Your task to perform on an android device: check data usage Image 0: 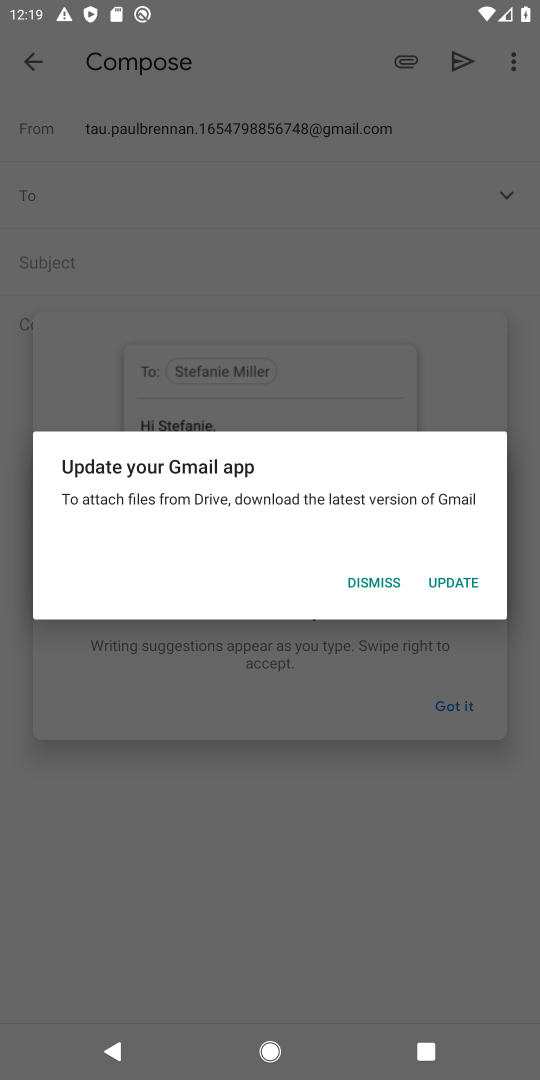
Step 0: press home button
Your task to perform on an android device: check data usage Image 1: 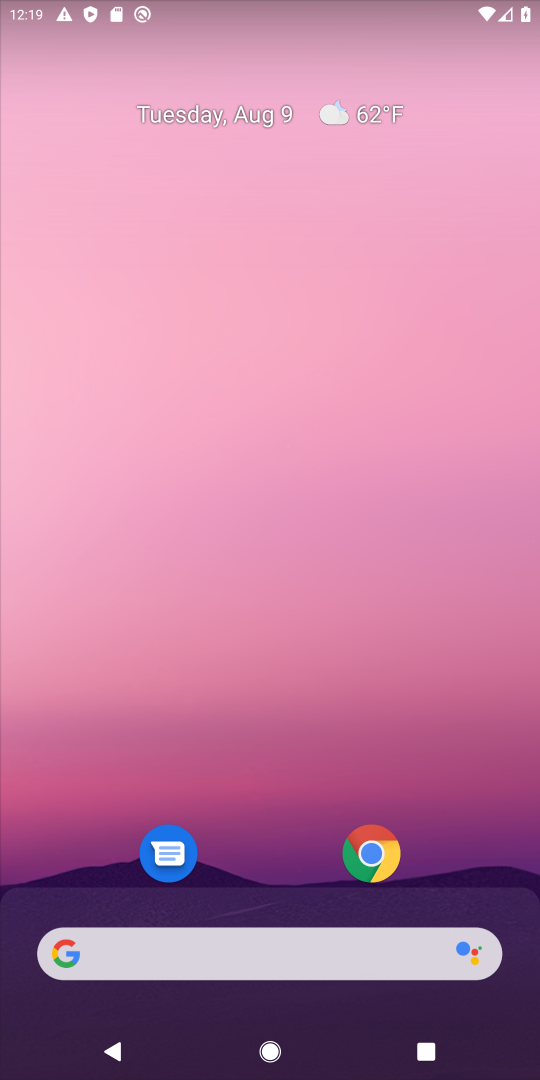
Step 1: press home button
Your task to perform on an android device: check data usage Image 2: 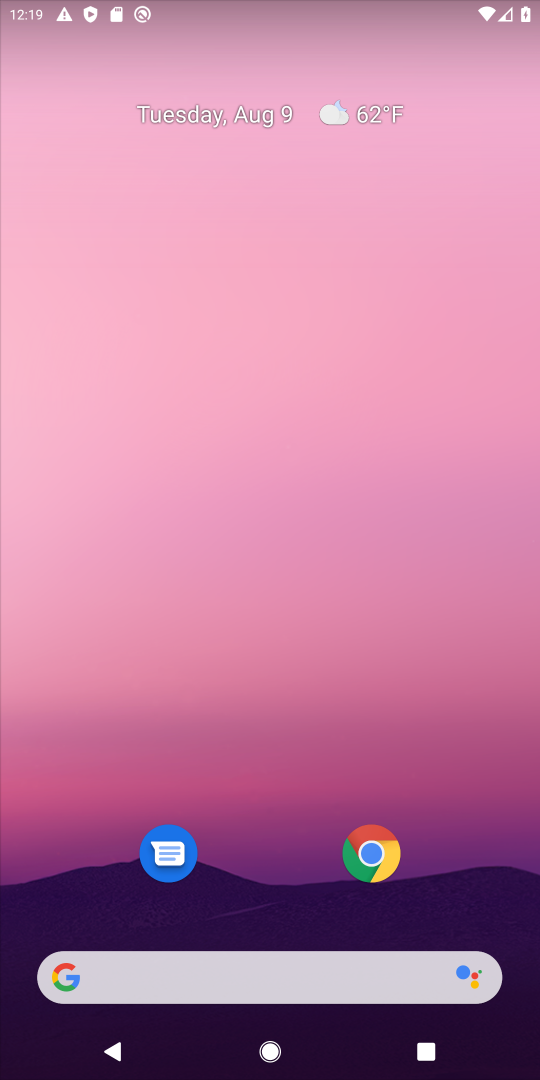
Step 2: drag from (211, 183) to (224, 52)
Your task to perform on an android device: check data usage Image 3: 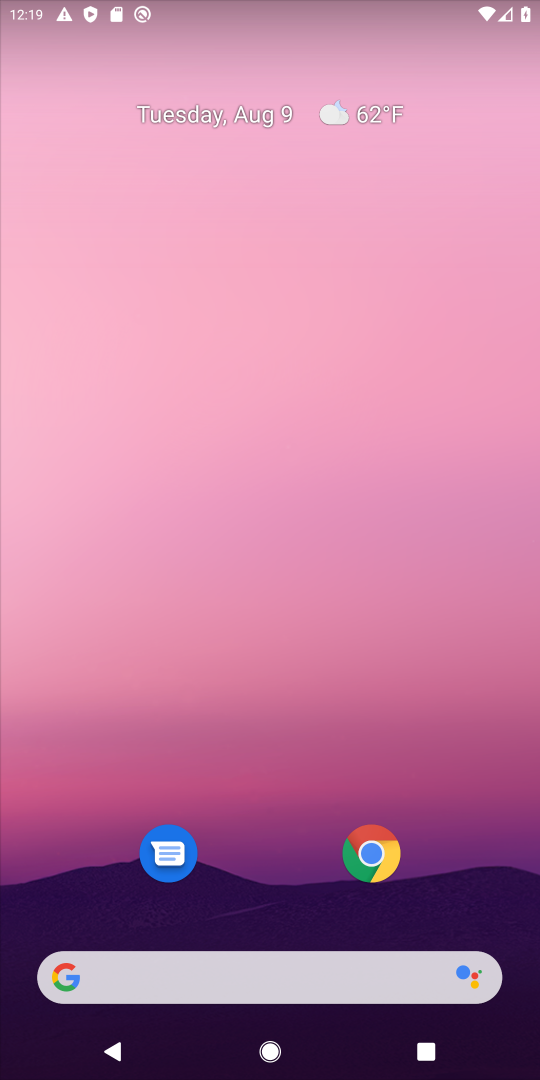
Step 3: drag from (248, 570) to (367, 11)
Your task to perform on an android device: check data usage Image 4: 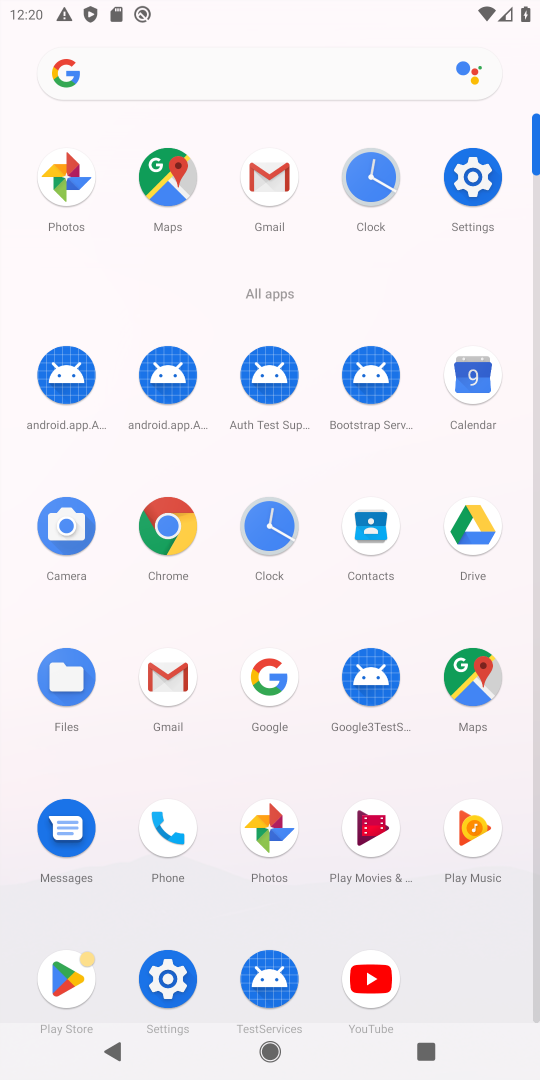
Step 4: click (496, 176)
Your task to perform on an android device: check data usage Image 5: 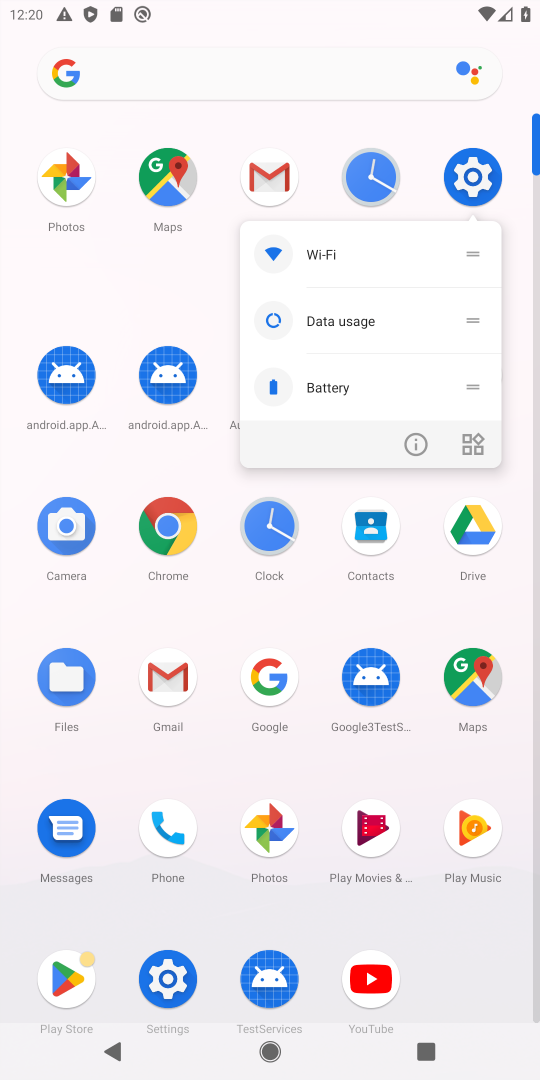
Step 5: click (494, 172)
Your task to perform on an android device: check data usage Image 6: 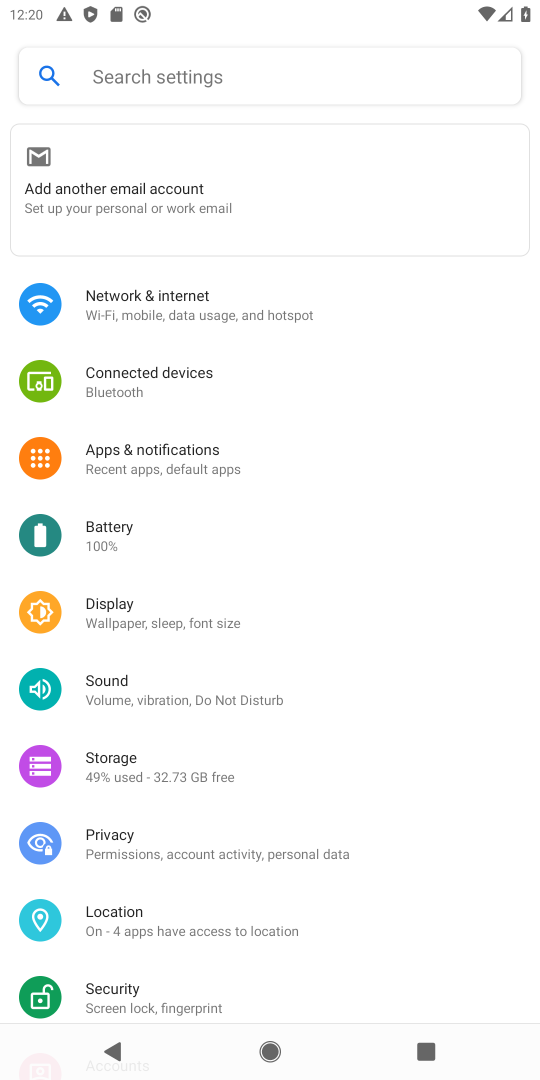
Step 6: click (139, 295)
Your task to perform on an android device: check data usage Image 7: 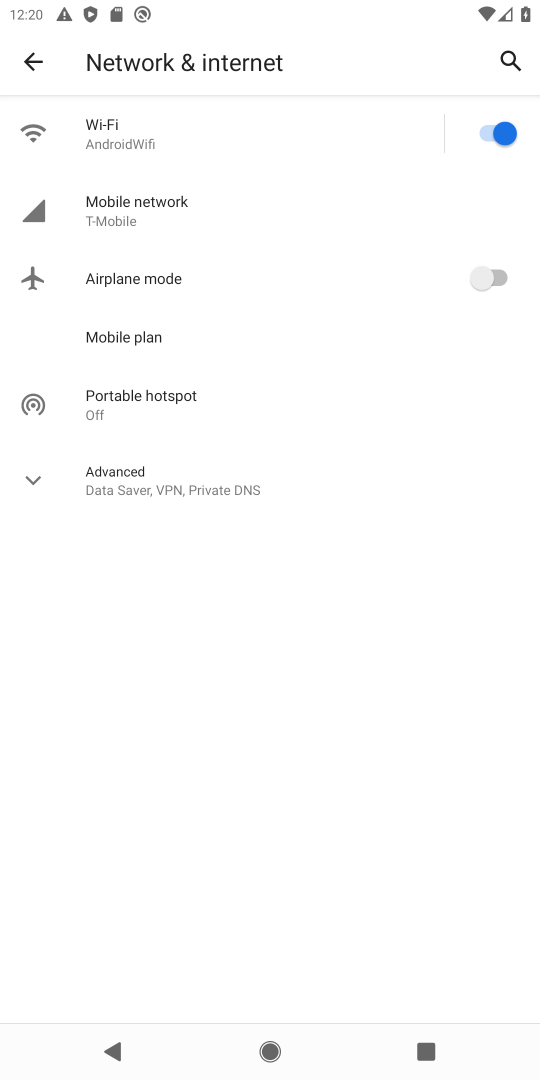
Step 7: click (121, 207)
Your task to perform on an android device: check data usage Image 8: 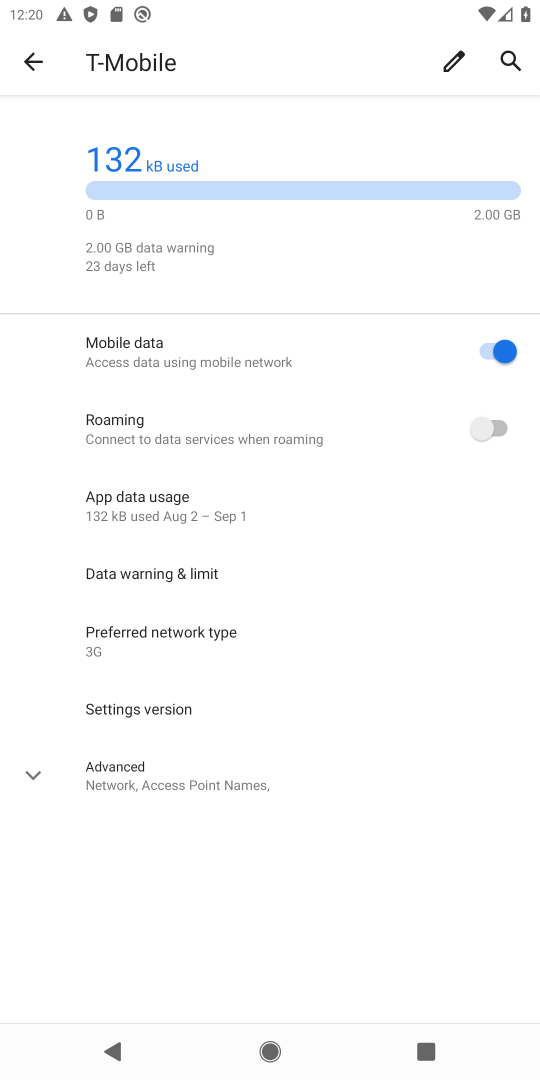
Step 8: task complete